Your task to perform on an android device: Go to eBay Image 0: 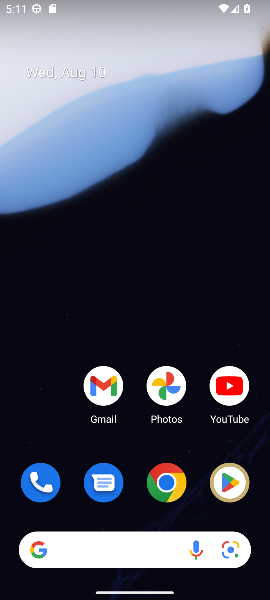
Step 0: drag from (51, 402) to (98, 7)
Your task to perform on an android device: Go to eBay Image 1: 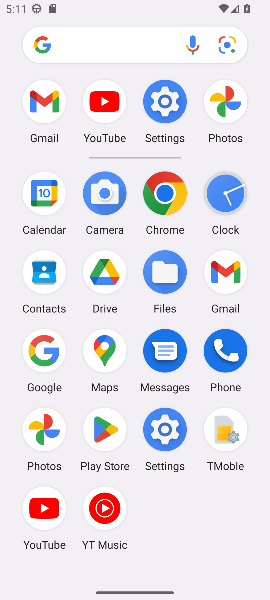
Step 1: click (43, 355)
Your task to perform on an android device: Go to eBay Image 2: 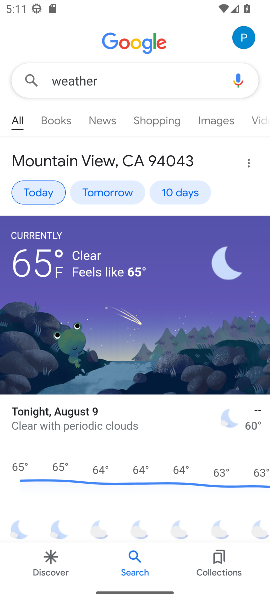
Step 2: click (162, 82)
Your task to perform on an android device: Go to eBay Image 3: 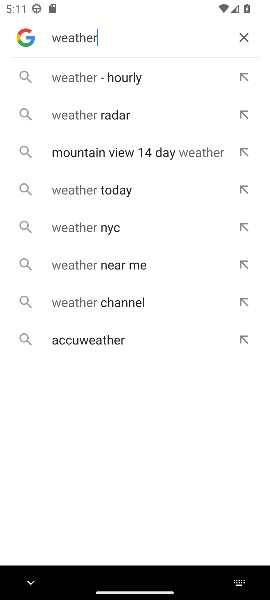
Step 3: click (246, 31)
Your task to perform on an android device: Go to eBay Image 4: 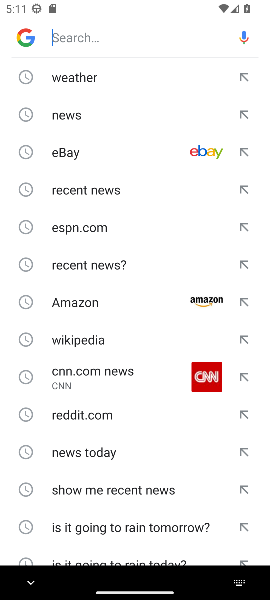
Step 4: click (139, 149)
Your task to perform on an android device: Go to eBay Image 5: 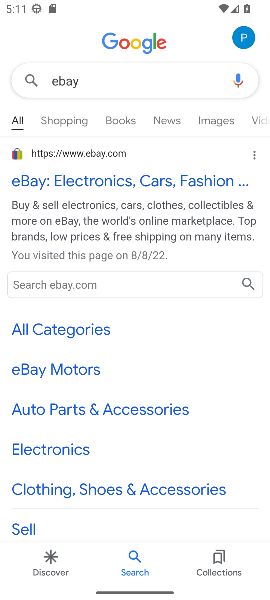
Step 5: click (49, 178)
Your task to perform on an android device: Go to eBay Image 6: 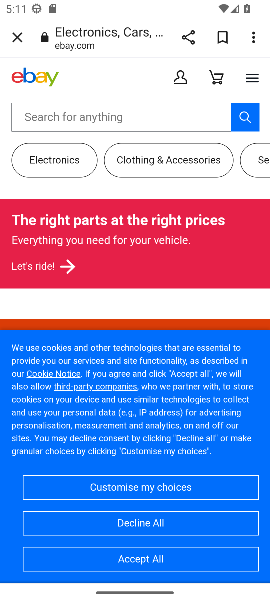
Step 6: task complete